Your task to perform on an android device: Toggle the flashlight Image 0: 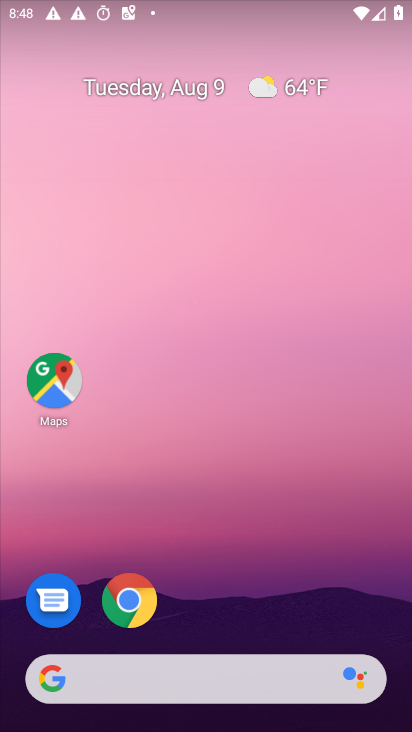
Step 0: press home button
Your task to perform on an android device: Toggle the flashlight Image 1: 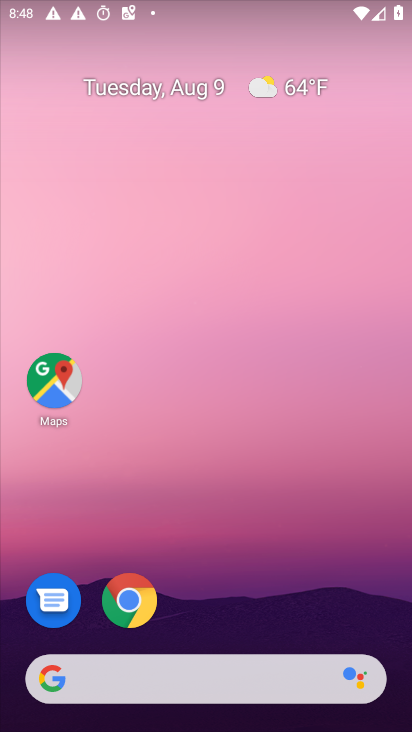
Step 1: task complete